Your task to perform on an android device: Open Android settings Image 0: 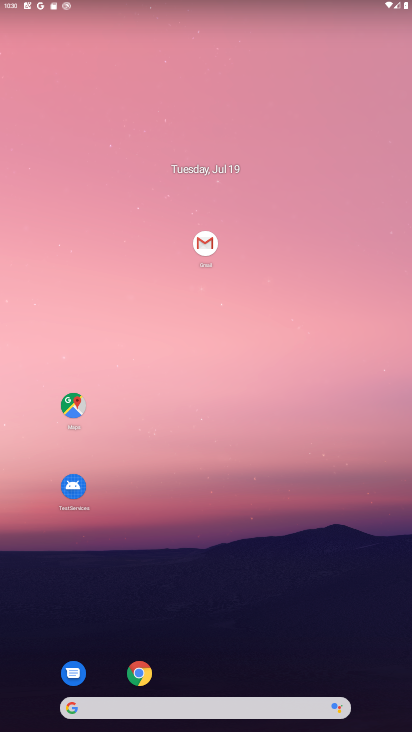
Step 0: drag from (238, 616) to (377, 126)
Your task to perform on an android device: Open Android settings Image 1: 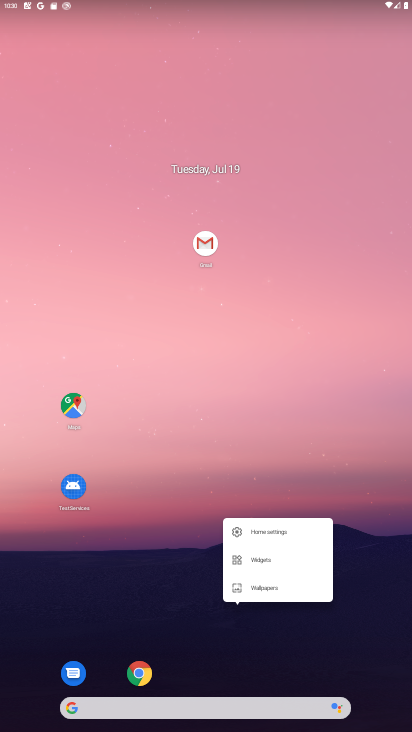
Step 1: click (333, 188)
Your task to perform on an android device: Open Android settings Image 2: 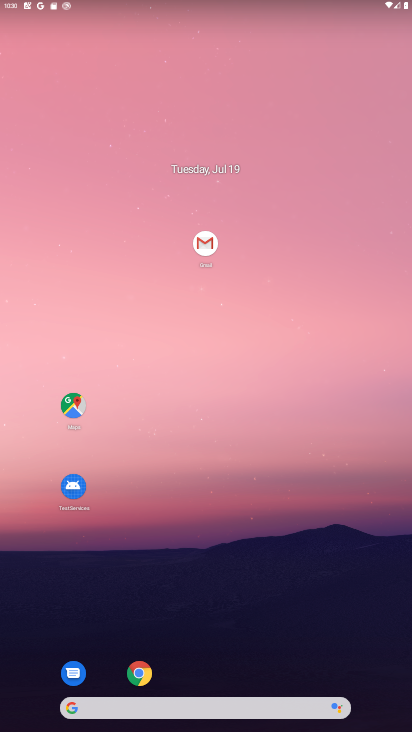
Step 2: drag from (276, 610) to (360, 194)
Your task to perform on an android device: Open Android settings Image 3: 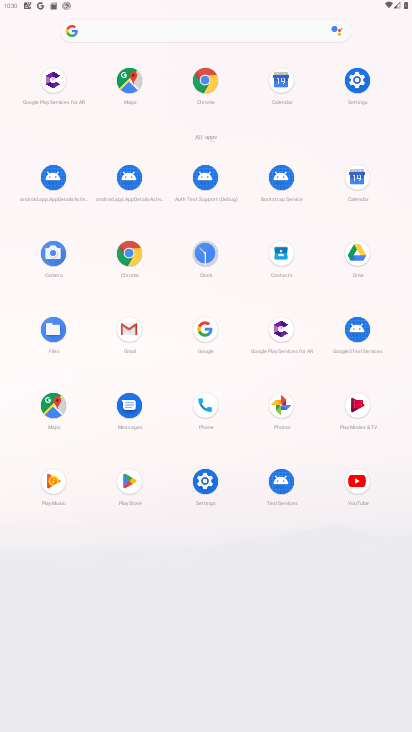
Step 3: click (210, 471)
Your task to perform on an android device: Open Android settings Image 4: 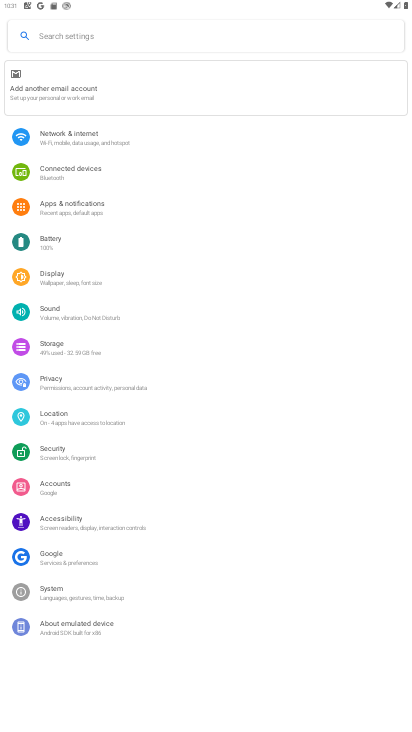
Step 4: task complete